Your task to perform on an android device: Empty the shopping cart on newegg.com. Add razer blade to the cart on newegg.com, then select checkout. Image 0: 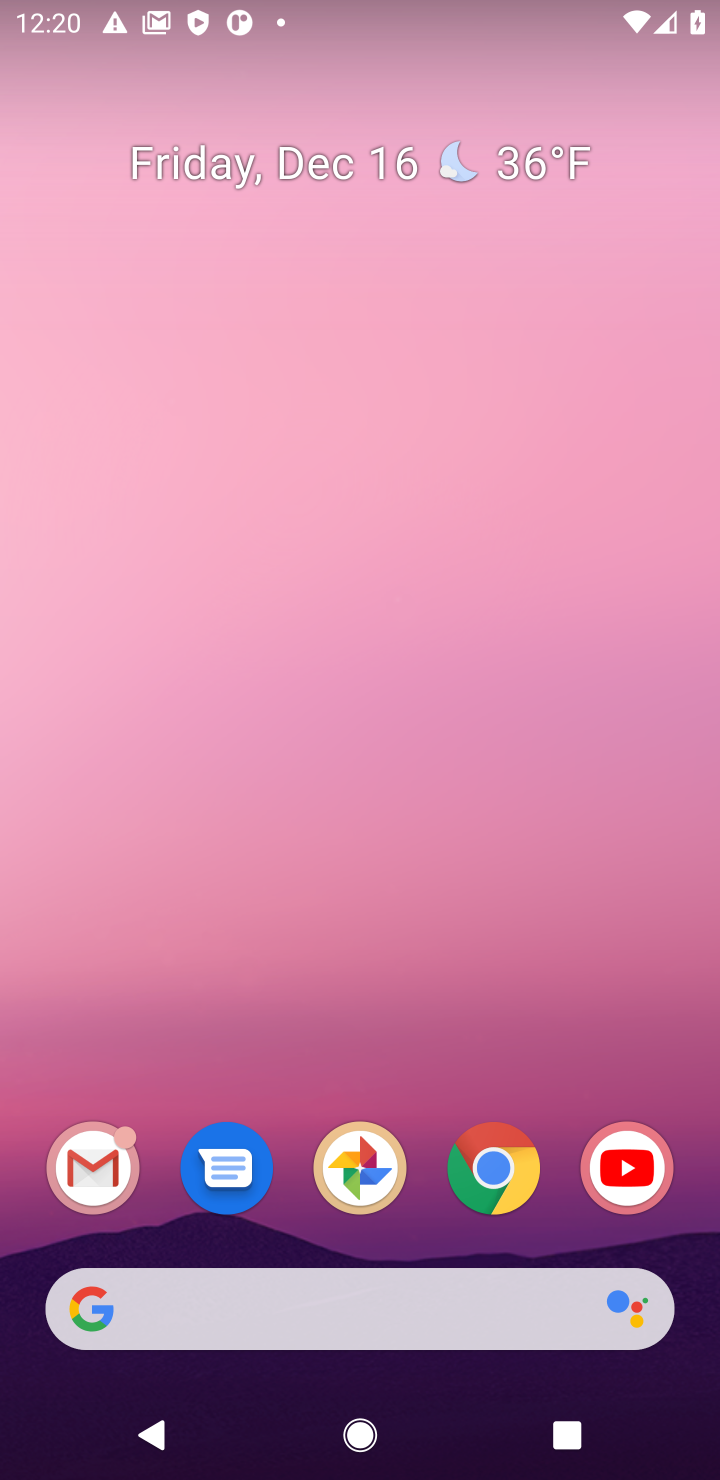
Step 0: click (501, 1164)
Your task to perform on an android device: Empty the shopping cart on newegg.com. Add razer blade to the cart on newegg.com, then select checkout. Image 1: 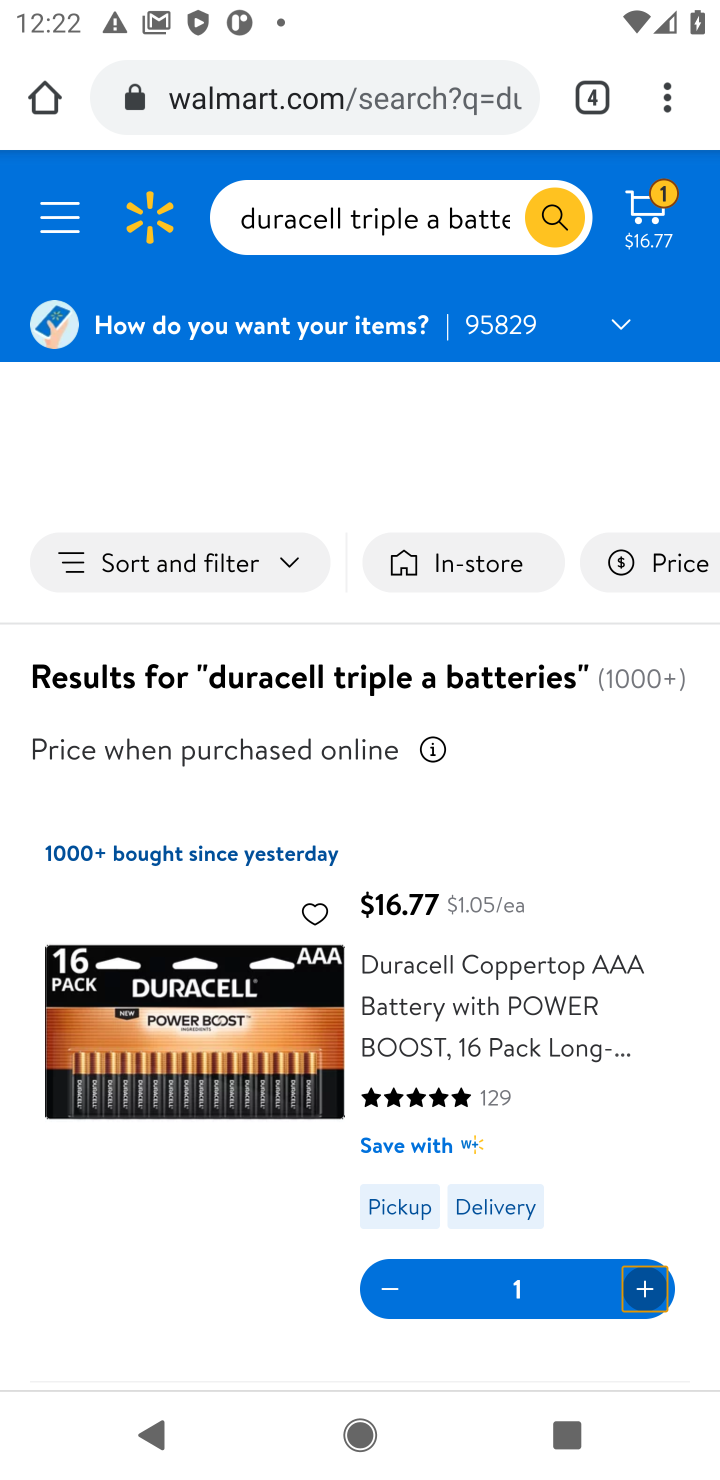
Step 1: task complete